Your task to perform on an android device: Go to Amazon Image 0: 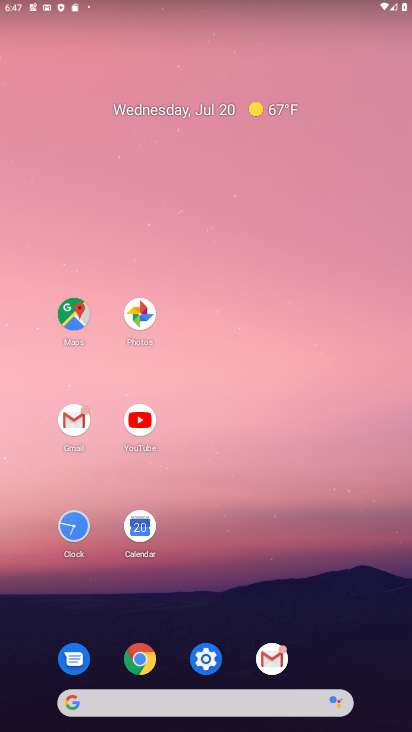
Step 0: click (137, 658)
Your task to perform on an android device: Go to Amazon Image 1: 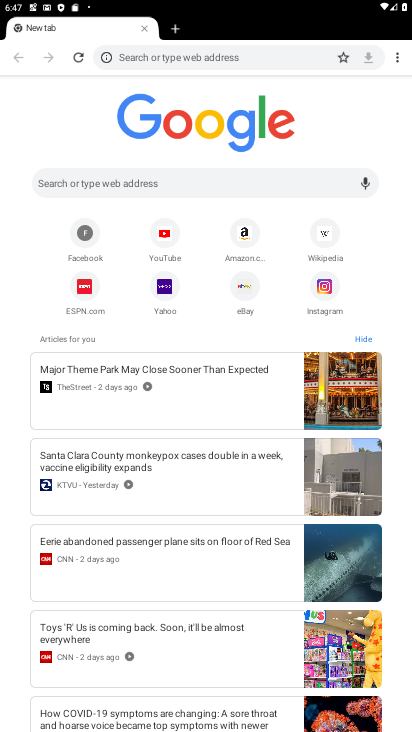
Step 1: click (249, 230)
Your task to perform on an android device: Go to Amazon Image 2: 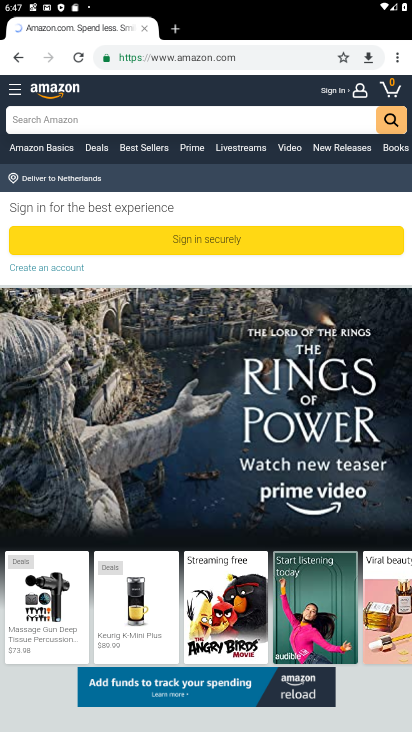
Step 2: task complete